Your task to perform on an android device: Open Maps and search for coffee Image 0: 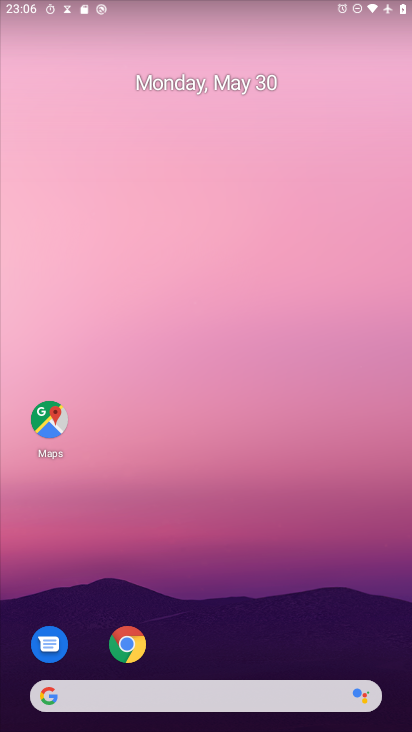
Step 0: click (43, 422)
Your task to perform on an android device: Open Maps and search for coffee Image 1: 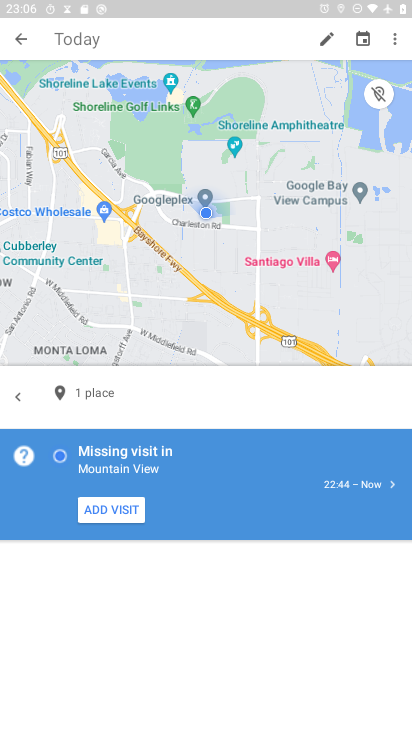
Step 1: press back button
Your task to perform on an android device: Open Maps and search for coffee Image 2: 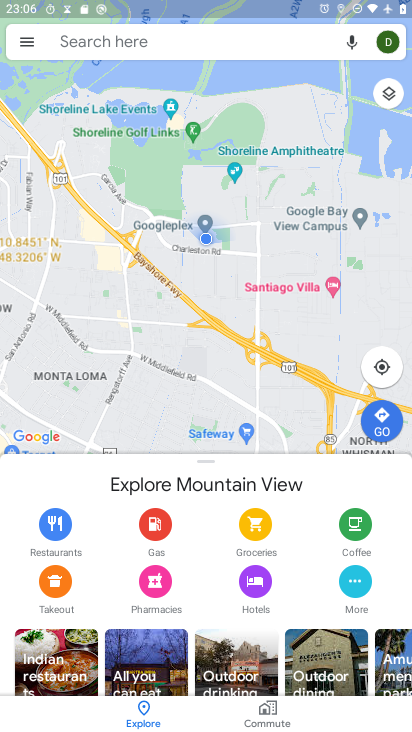
Step 2: click (25, 44)
Your task to perform on an android device: Open Maps and search for coffee Image 3: 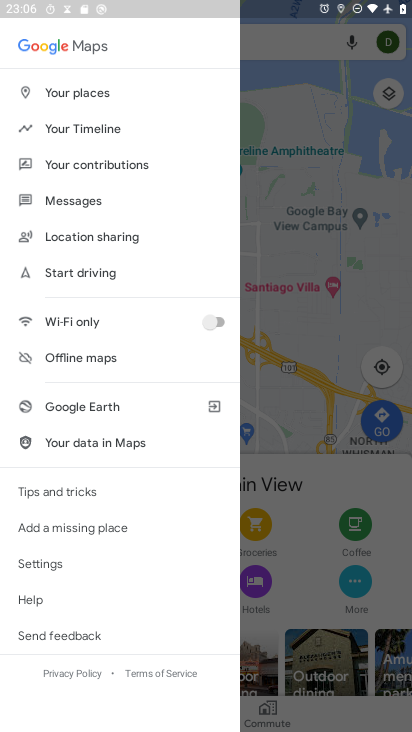
Step 3: click (287, 47)
Your task to perform on an android device: Open Maps and search for coffee Image 4: 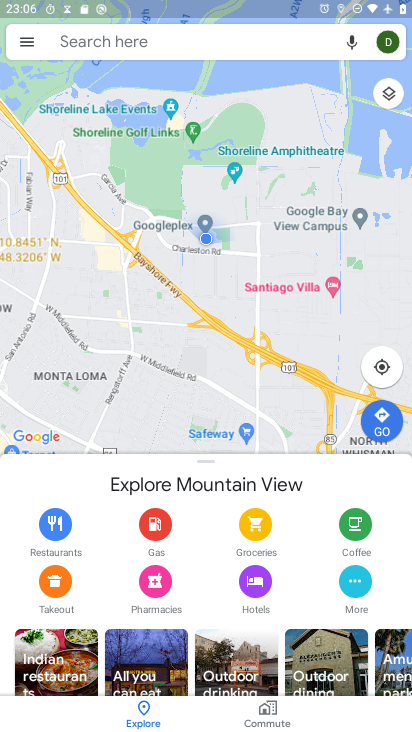
Step 4: click (174, 42)
Your task to perform on an android device: Open Maps and search for coffee Image 5: 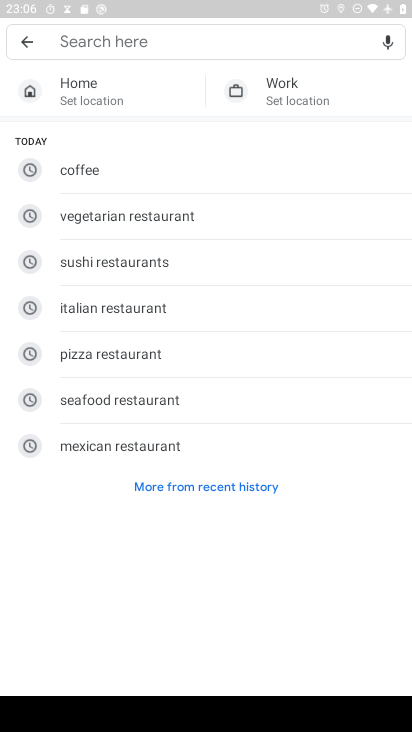
Step 5: click (118, 163)
Your task to perform on an android device: Open Maps and search for coffee Image 6: 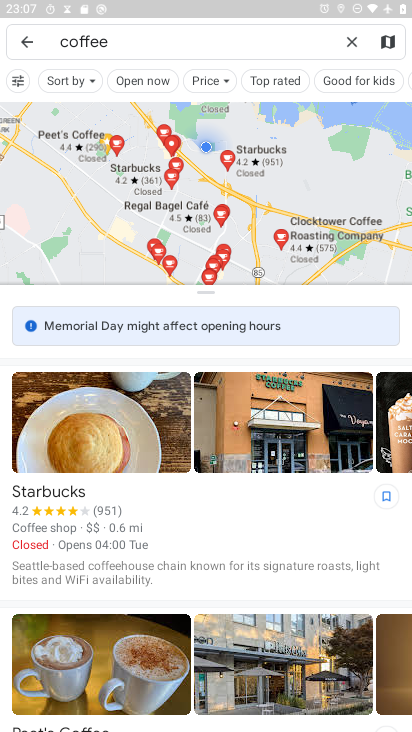
Step 6: task complete